Your task to perform on an android device: Check the settings for the Google Play Store app Image 0: 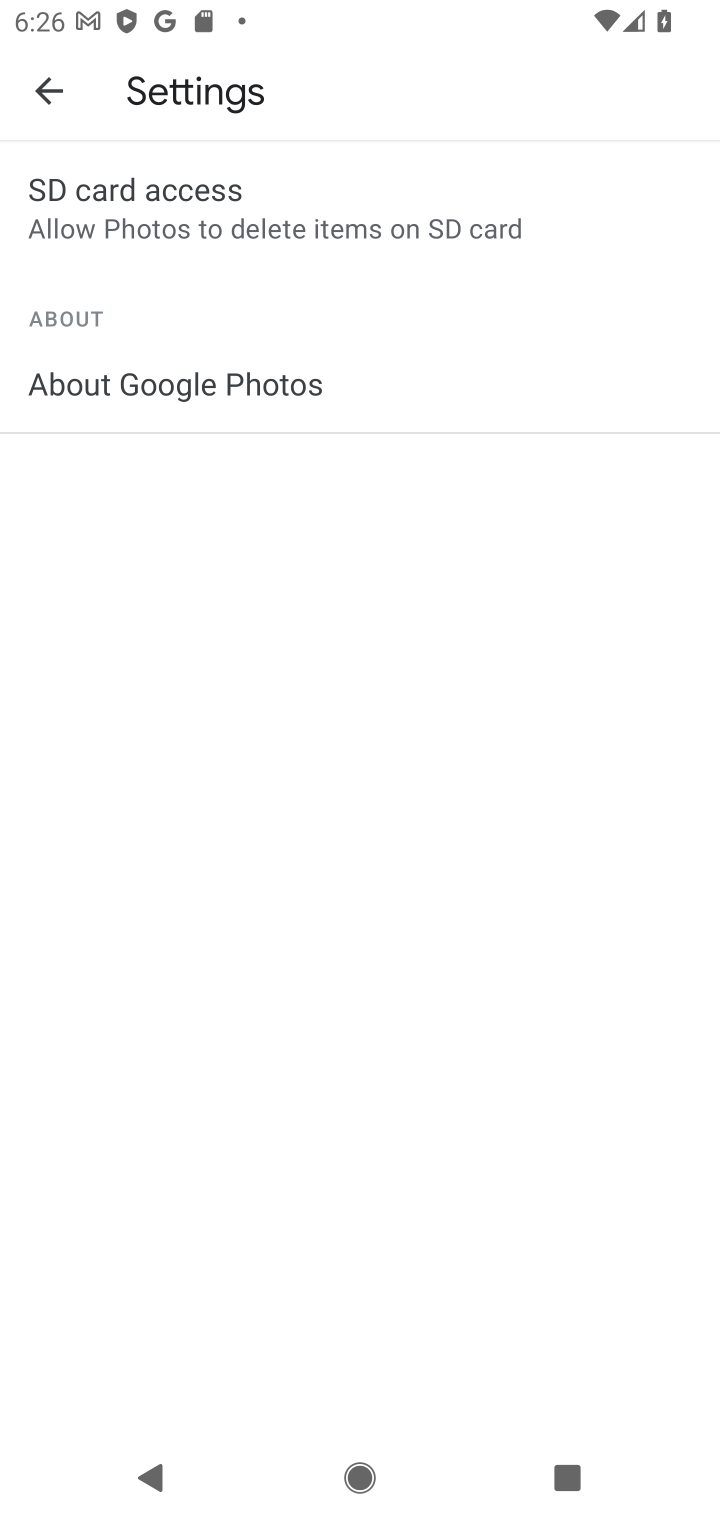
Step 0: press home button
Your task to perform on an android device: Check the settings for the Google Play Store app Image 1: 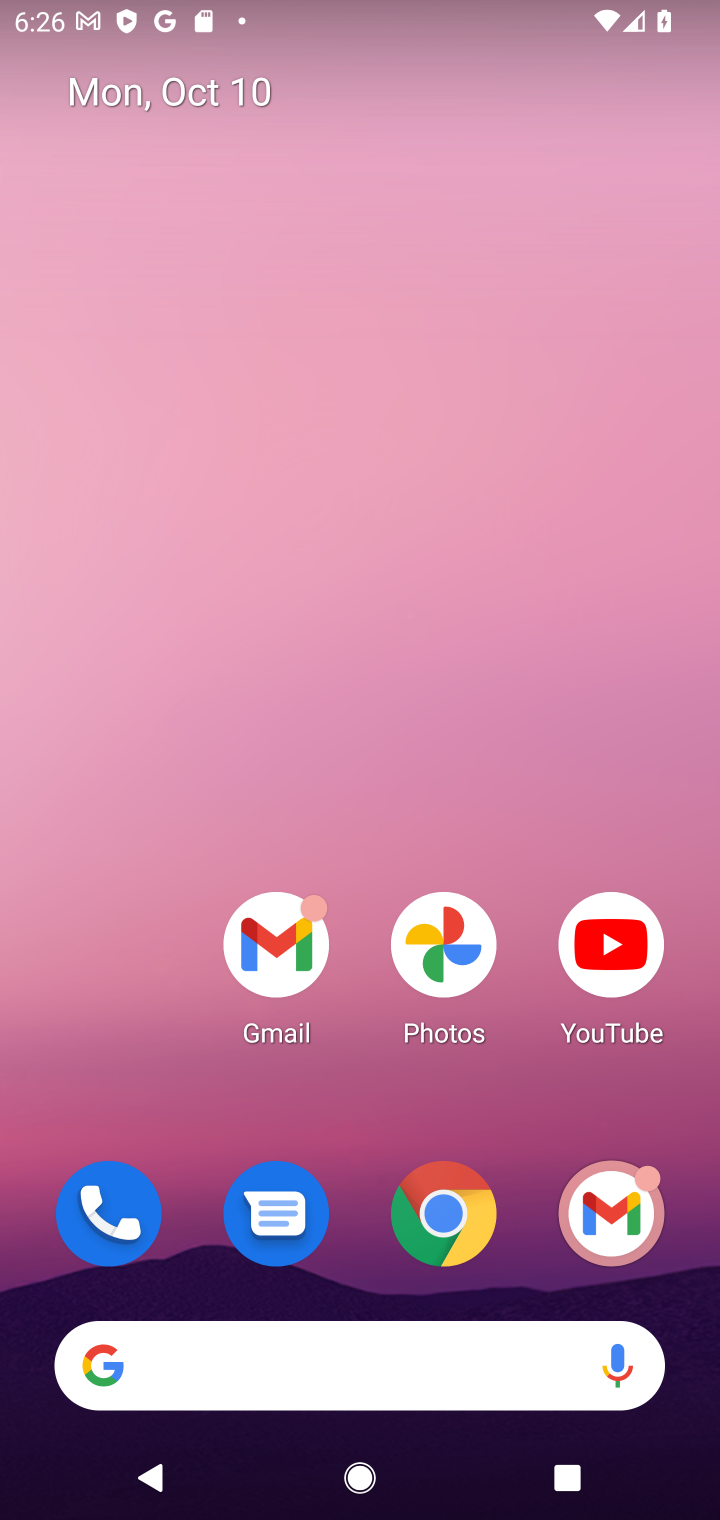
Step 1: drag from (380, 978) to (425, 384)
Your task to perform on an android device: Check the settings for the Google Play Store app Image 2: 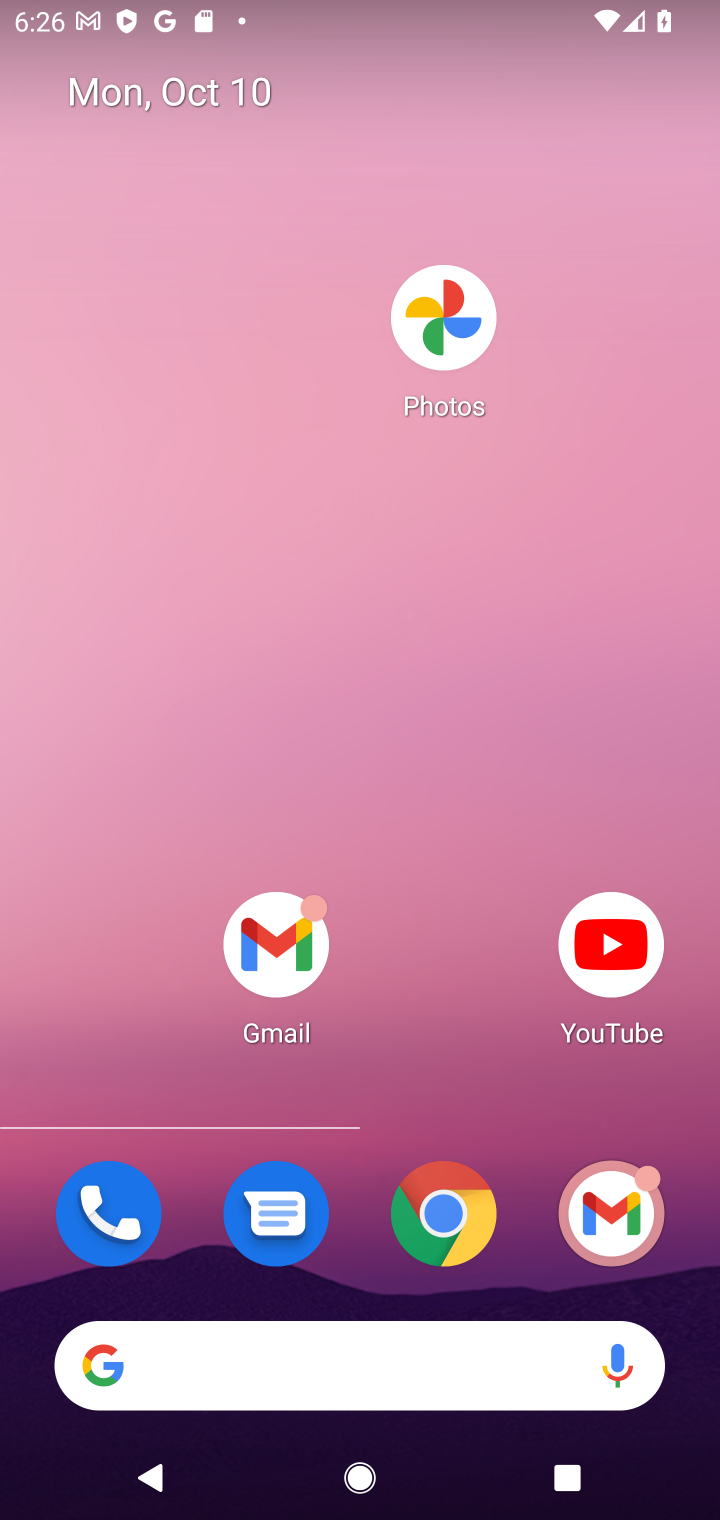
Step 2: click (391, 976)
Your task to perform on an android device: Check the settings for the Google Play Store app Image 3: 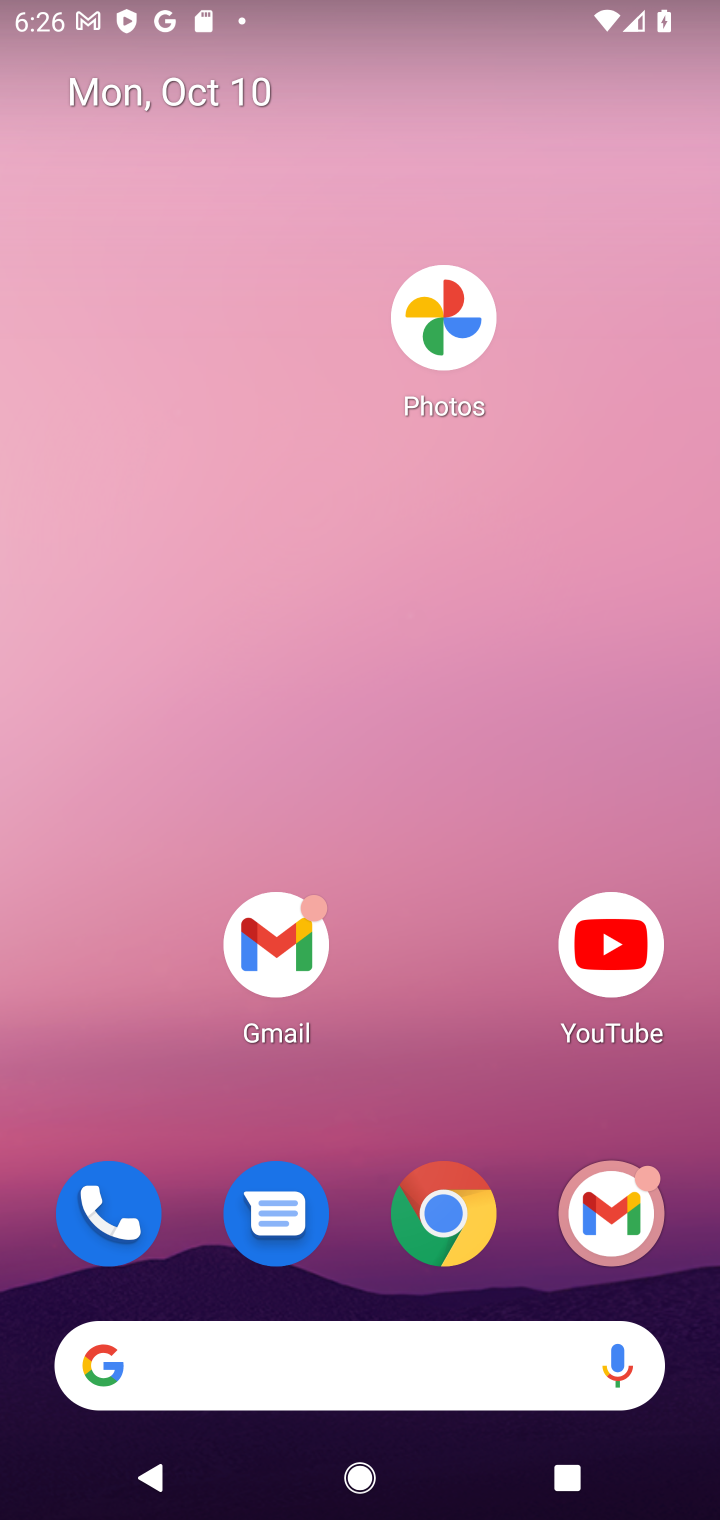
Step 3: drag from (366, 1047) to (439, 209)
Your task to perform on an android device: Check the settings for the Google Play Store app Image 4: 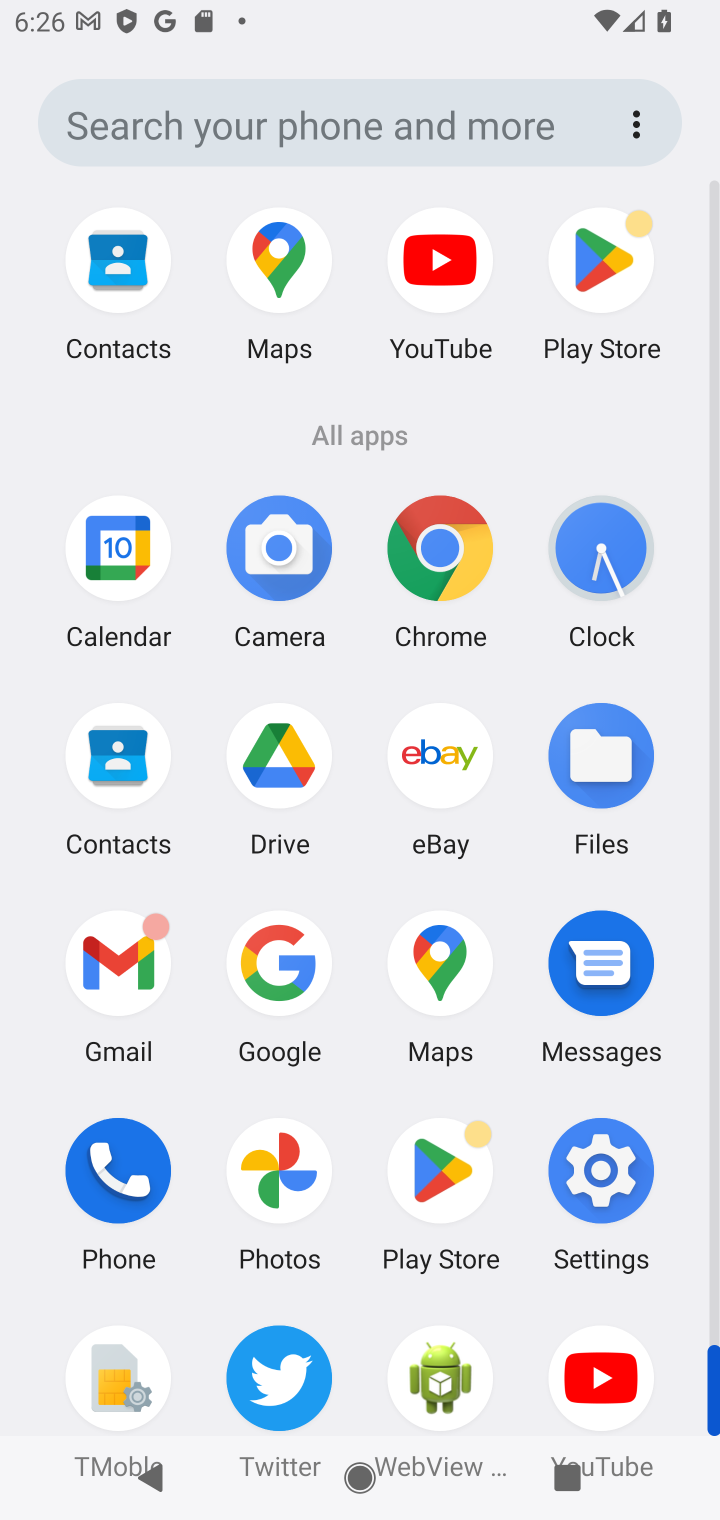
Step 4: click (595, 317)
Your task to perform on an android device: Check the settings for the Google Play Store app Image 5: 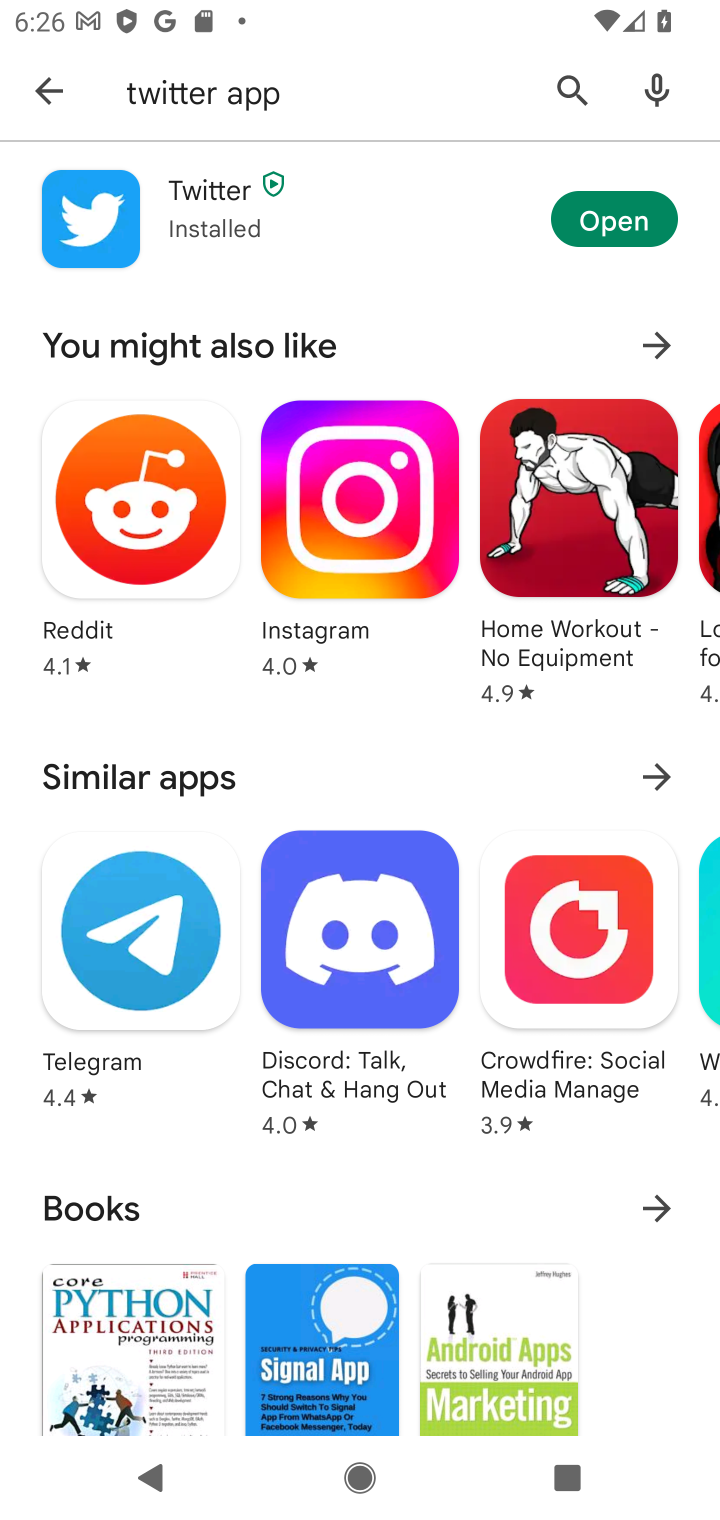
Step 5: click (20, 91)
Your task to perform on an android device: Check the settings for the Google Play Store app Image 6: 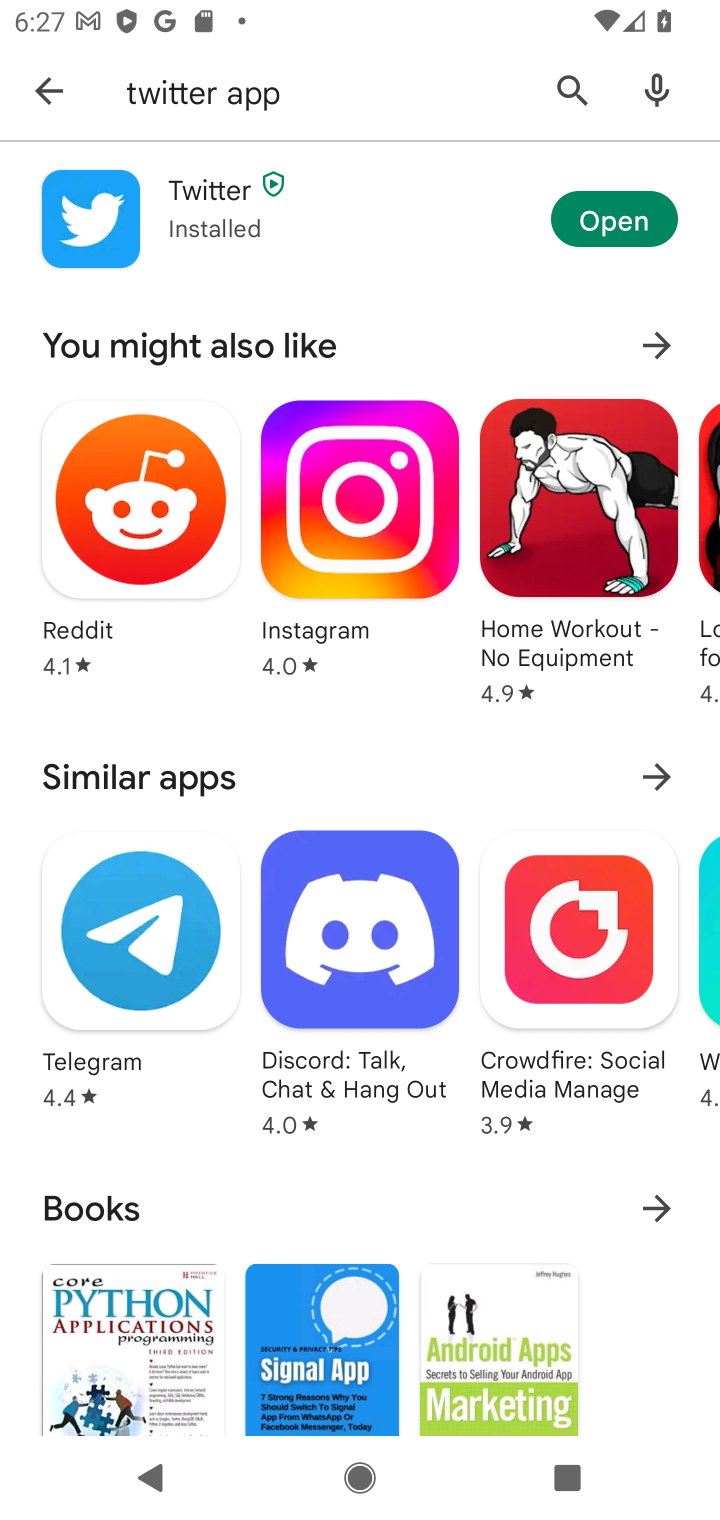
Step 6: click (62, 94)
Your task to perform on an android device: Check the settings for the Google Play Store app Image 7: 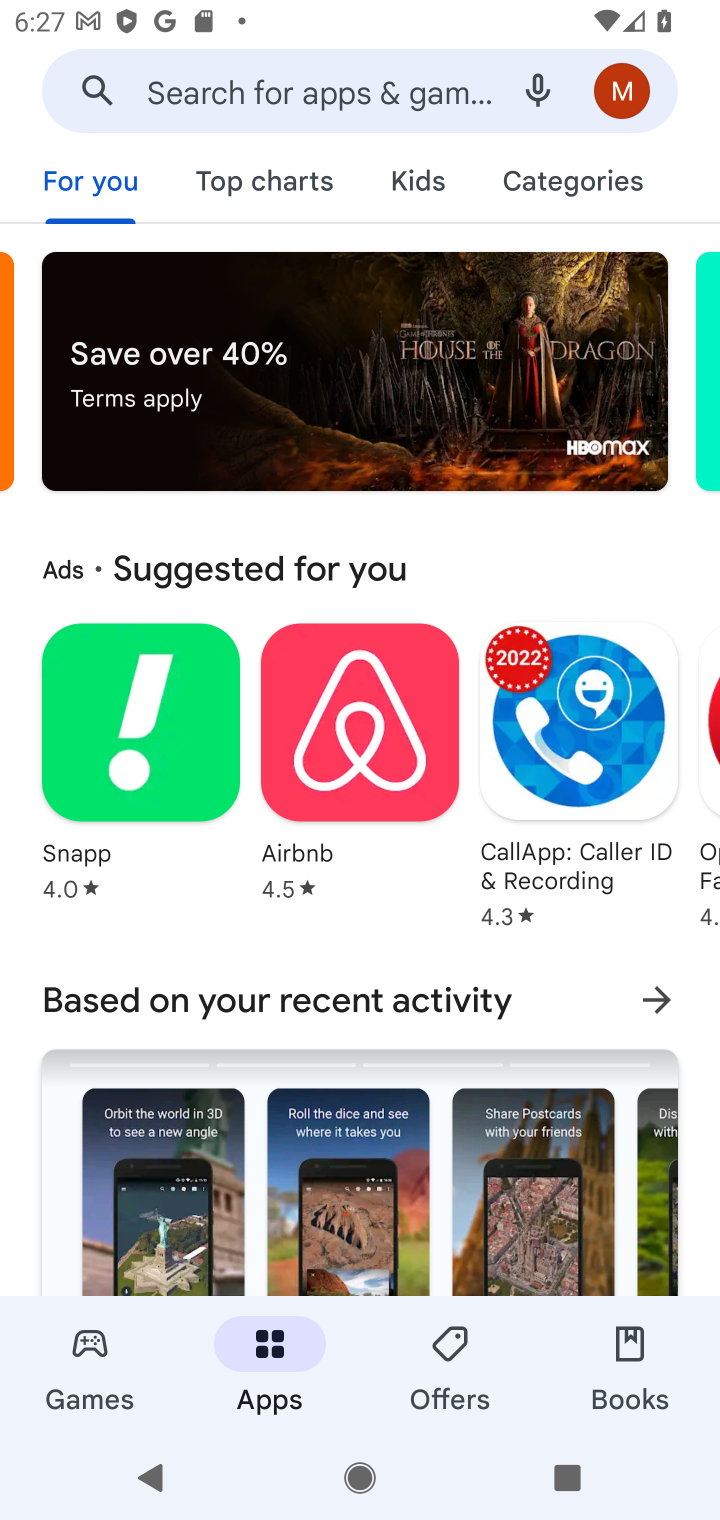
Step 7: click (638, 90)
Your task to perform on an android device: Check the settings for the Google Play Store app Image 8: 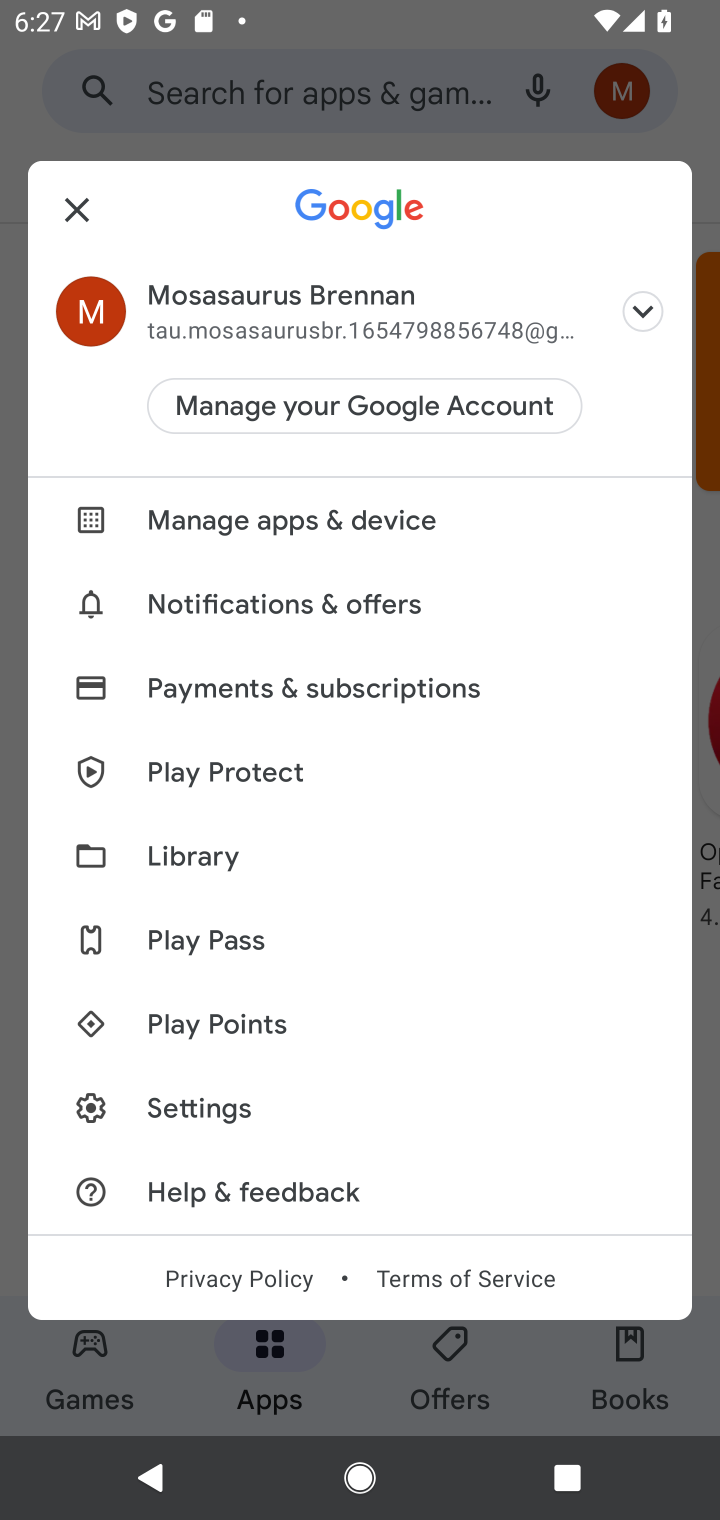
Step 8: click (224, 1085)
Your task to perform on an android device: Check the settings for the Google Play Store app Image 9: 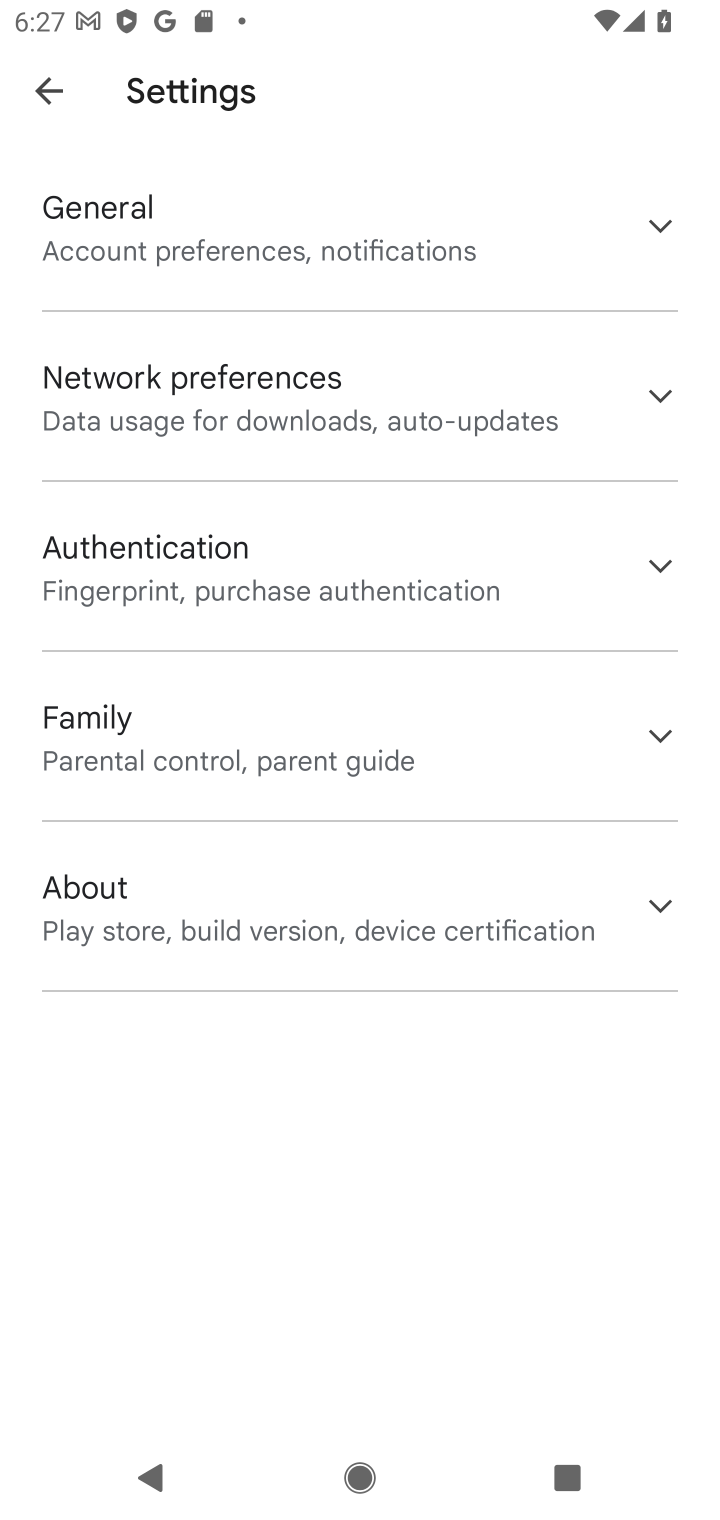
Step 9: click (345, 225)
Your task to perform on an android device: Check the settings for the Google Play Store app Image 10: 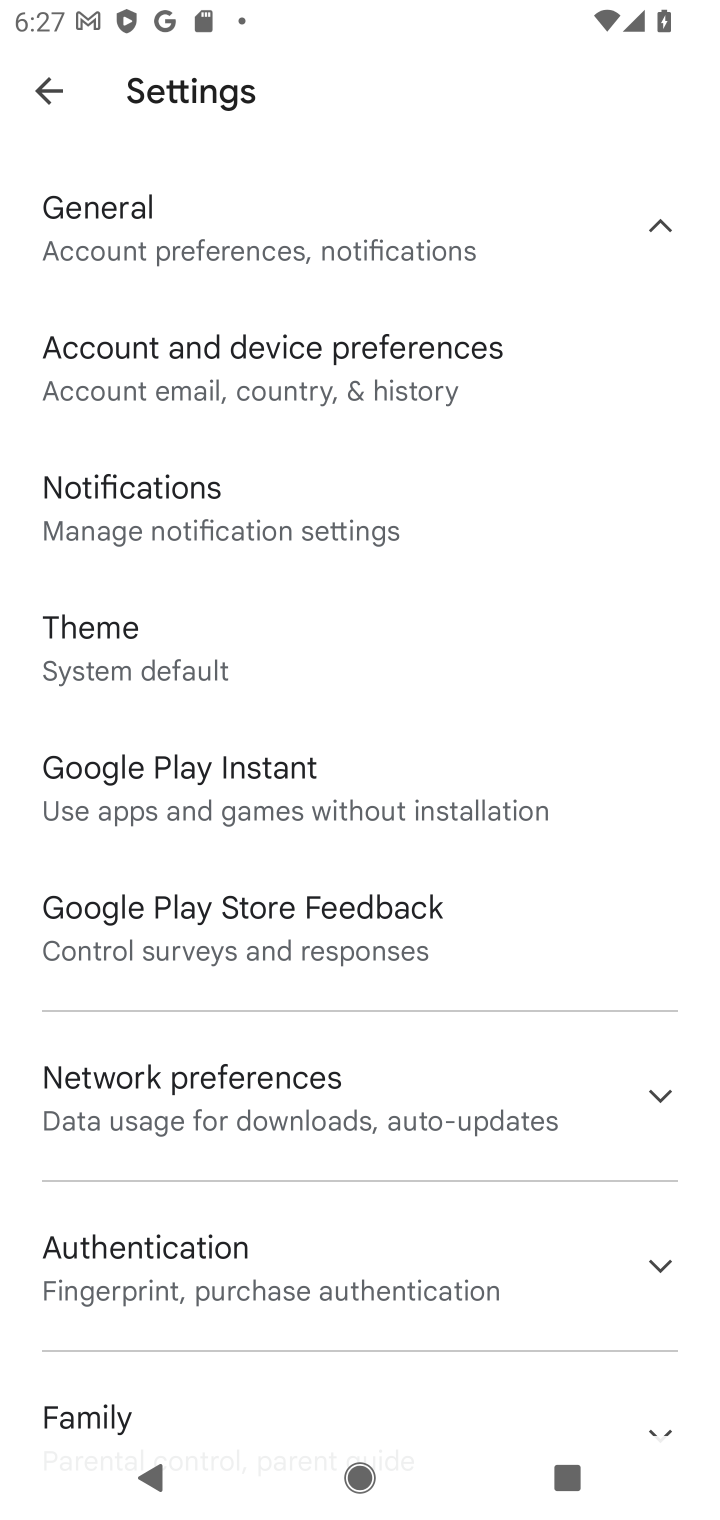
Step 10: click (228, 636)
Your task to perform on an android device: Check the settings for the Google Play Store app Image 11: 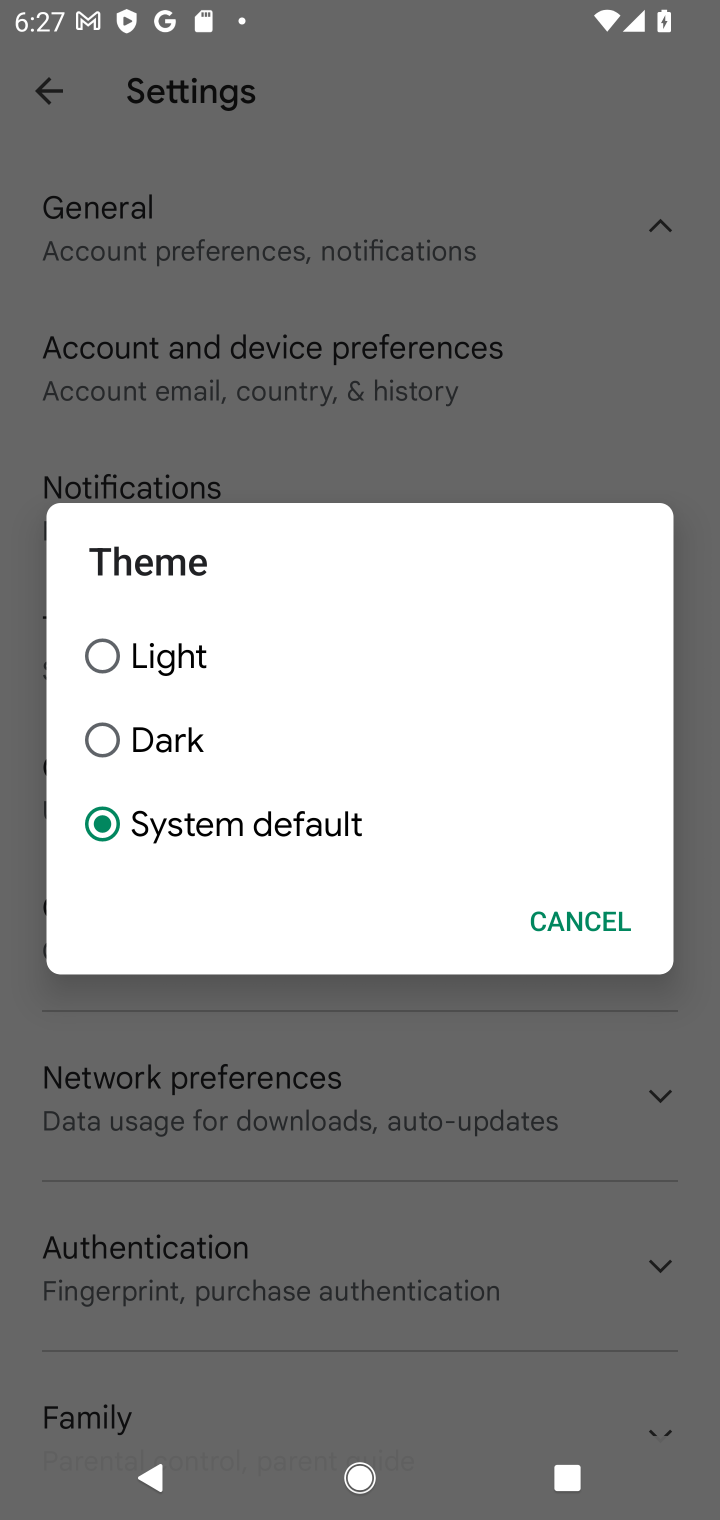
Step 11: click (170, 732)
Your task to perform on an android device: Check the settings for the Google Play Store app Image 12: 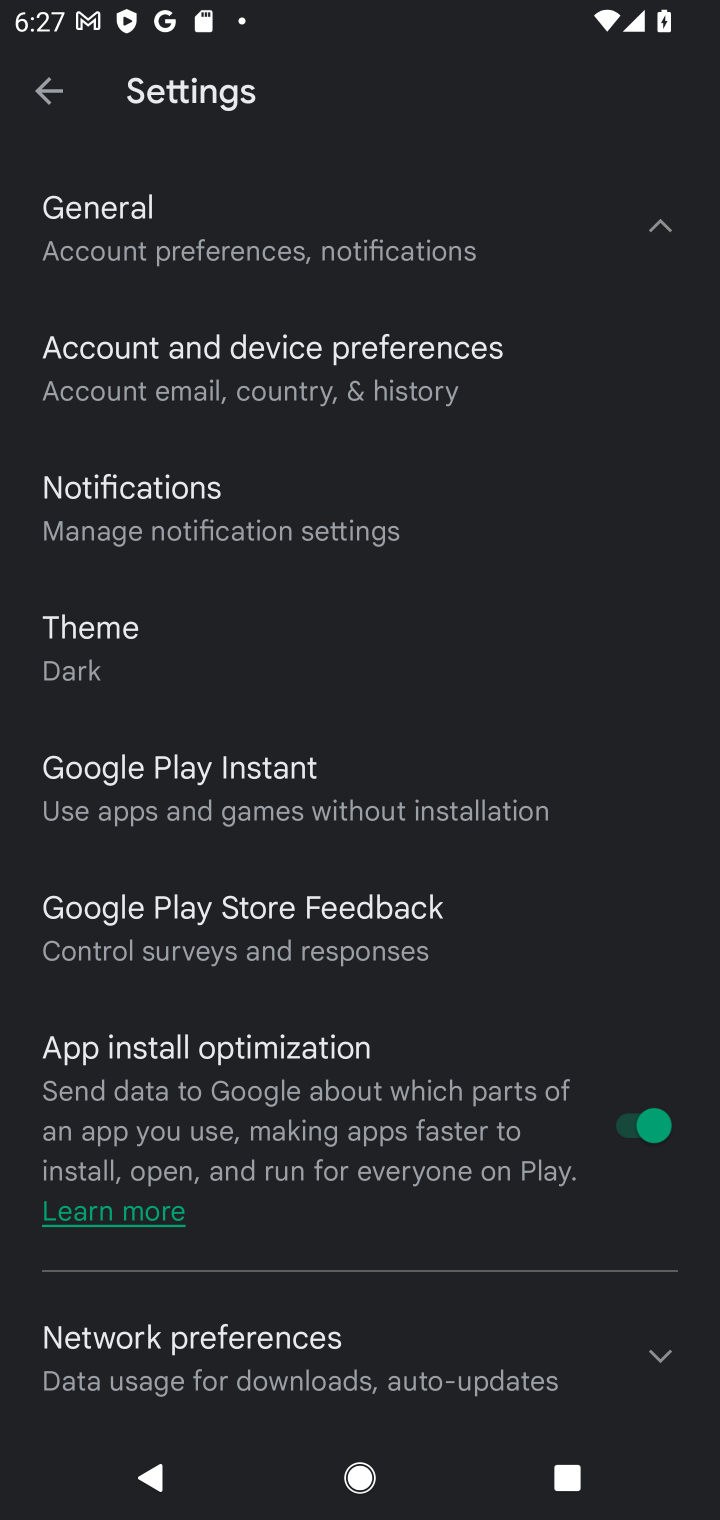
Step 12: task complete